Your task to perform on an android device: check the backup settings in the google photos Image 0: 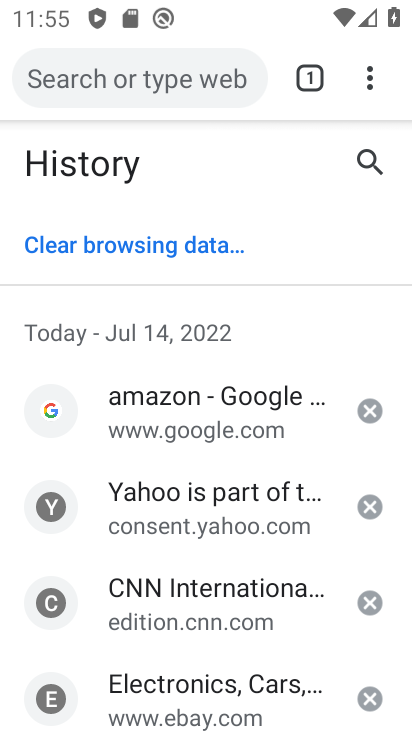
Step 0: press home button
Your task to perform on an android device: check the backup settings in the google photos Image 1: 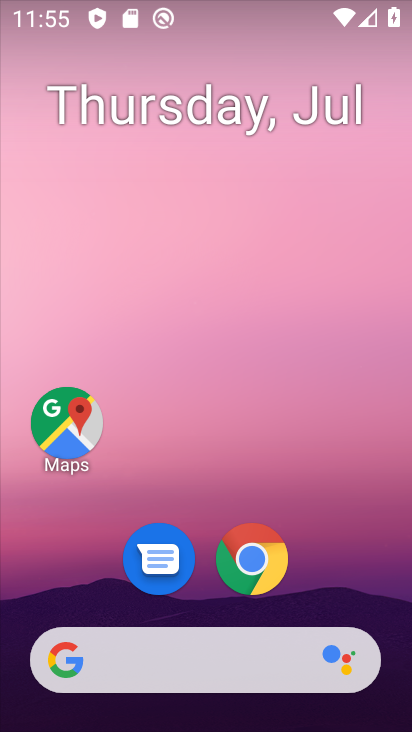
Step 1: drag from (351, 577) to (376, 125)
Your task to perform on an android device: check the backup settings in the google photos Image 2: 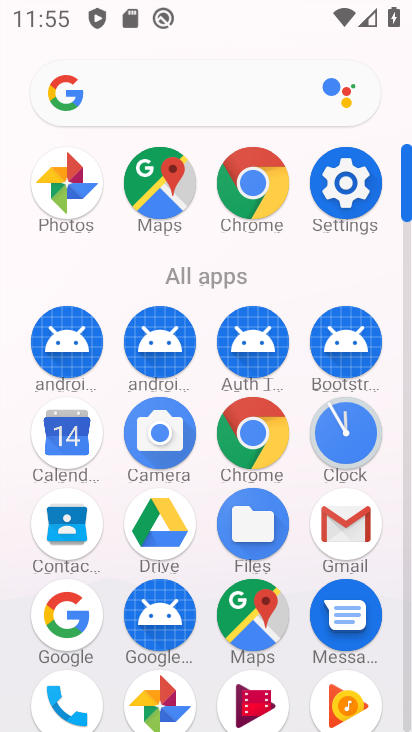
Step 2: drag from (382, 573) to (384, 376)
Your task to perform on an android device: check the backup settings in the google photos Image 3: 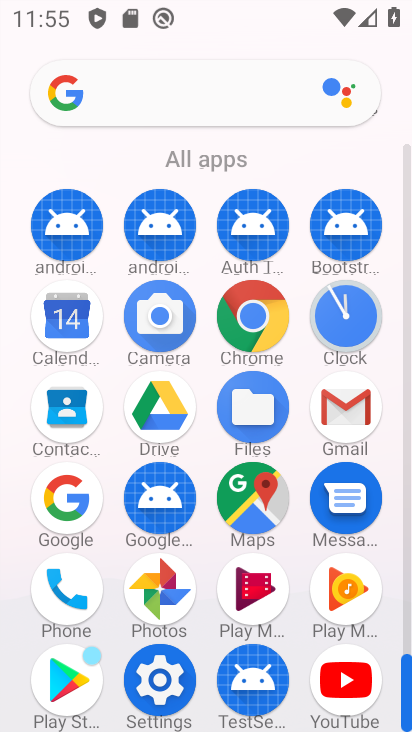
Step 3: click (160, 592)
Your task to perform on an android device: check the backup settings in the google photos Image 4: 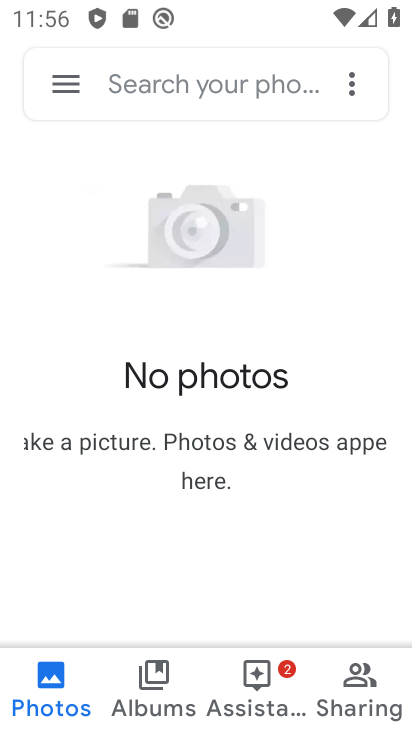
Step 4: click (70, 84)
Your task to perform on an android device: check the backup settings in the google photos Image 5: 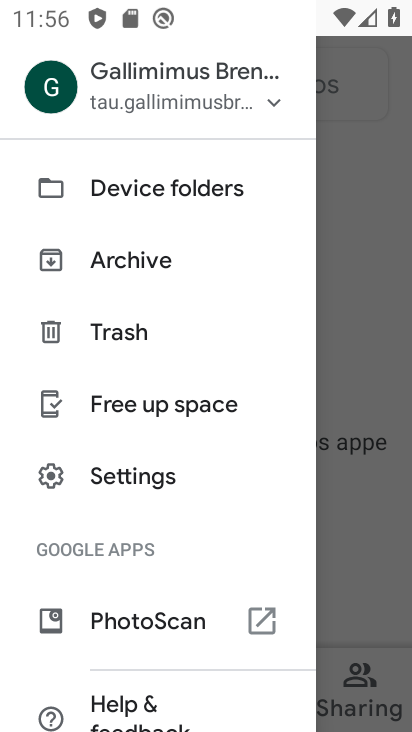
Step 5: drag from (230, 460) to (228, 367)
Your task to perform on an android device: check the backup settings in the google photos Image 6: 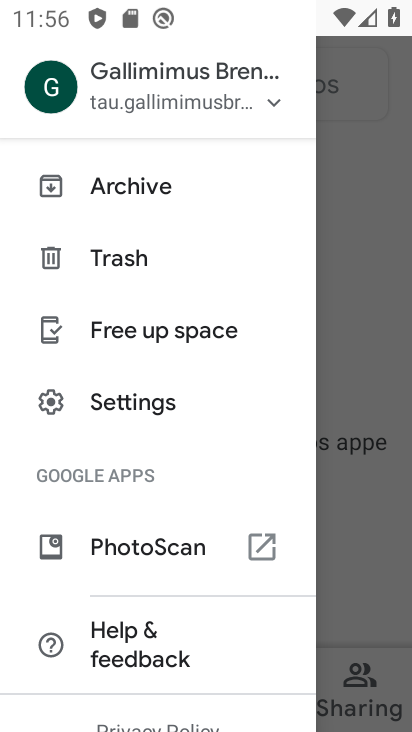
Step 6: click (199, 408)
Your task to perform on an android device: check the backup settings in the google photos Image 7: 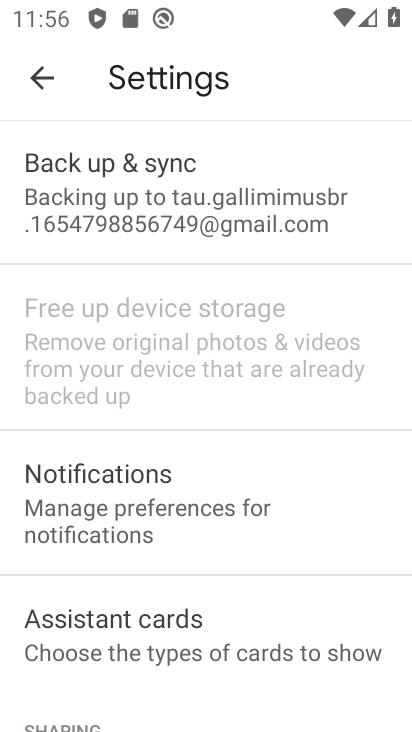
Step 7: click (284, 219)
Your task to perform on an android device: check the backup settings in the google photos Image 8: 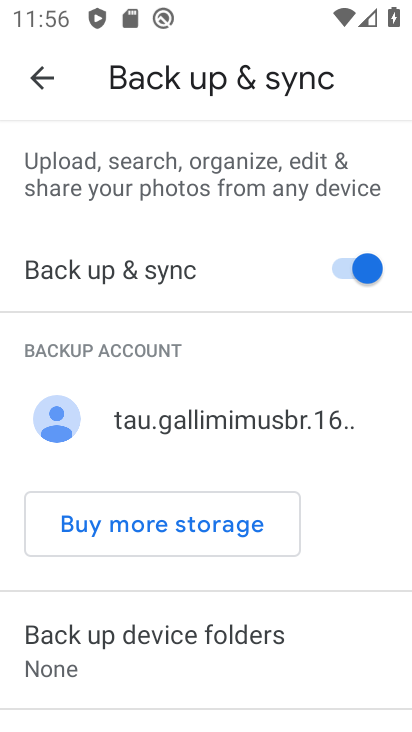
Step 8: task complete